Your task to perform on an android device: all mails in gmail Image 0: 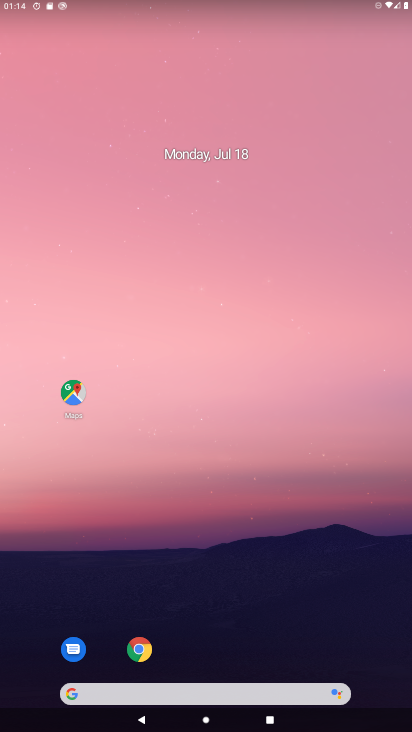
Step 0: drag from (12, 700) to (242, 110)
Your task to perform on an android device: all mails in gmail Image 1: 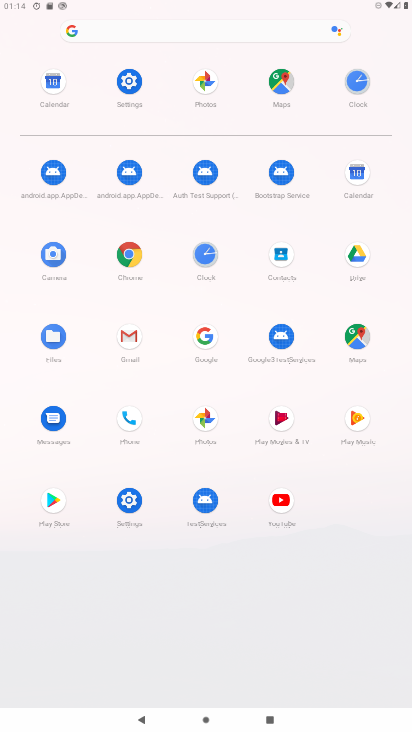
Step 1: click (128, 339)
Your task to perform on an android device: all mails in gmail Image 2: 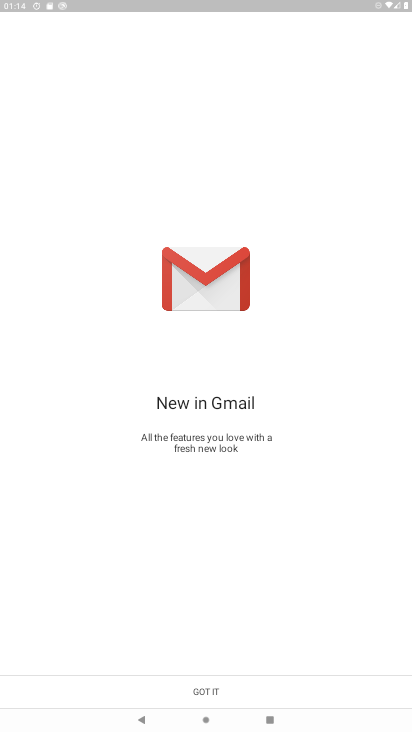
Step 2: click (219, 670)
Your task to perform on an android device: all mails in gmail Image 3: 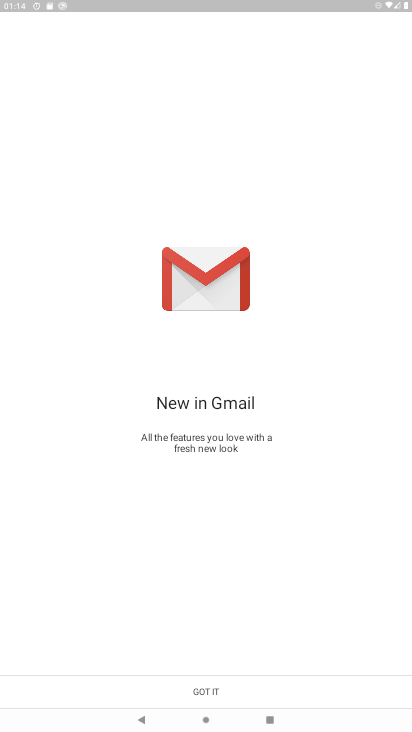
Step 3: click (215, 692)
Your task to perform on an android device: all mails in gmail Image 4: 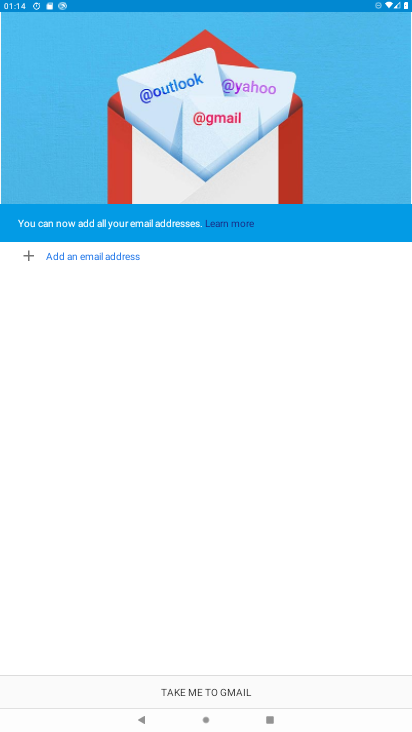
Step 4: click (188, 690)
Your task to perform on an android device: all mails in gmail Image 5: 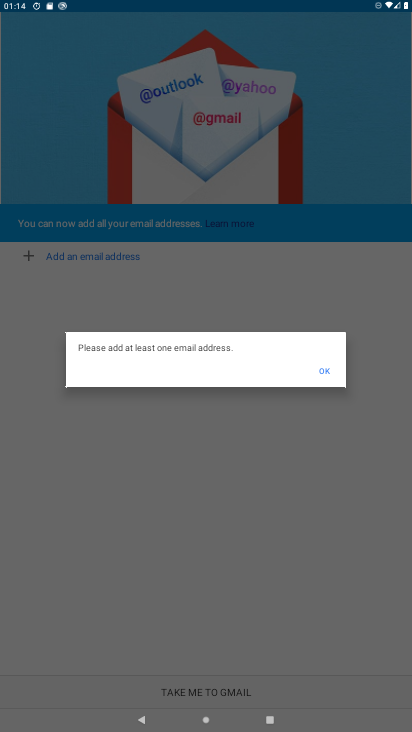
Step 5: task complete